Your task to perform on an android device: Go to Google Image 0: 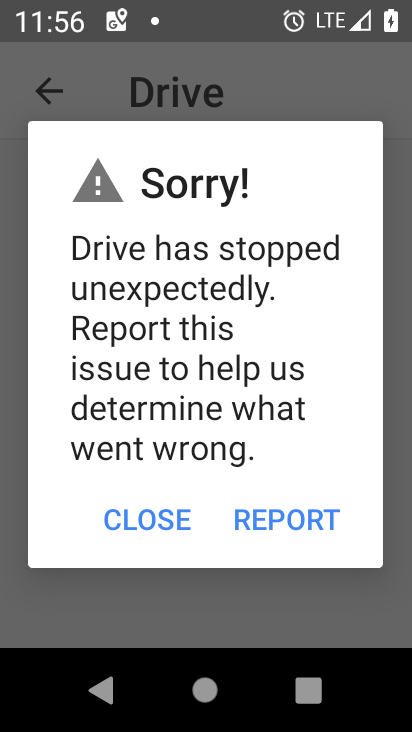
Step 0: press home button
Your task to perform on an android device: Go to Google Image 1: 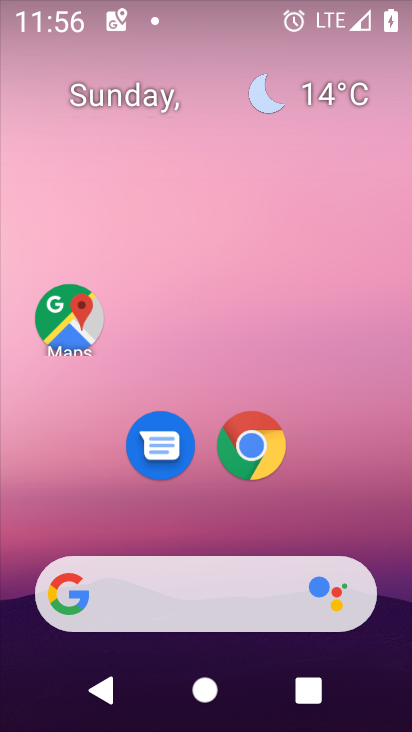
Step 1: drag from (229, 480) to (295, 80)
Your task to perform on an android device: Go to Google Image 2: 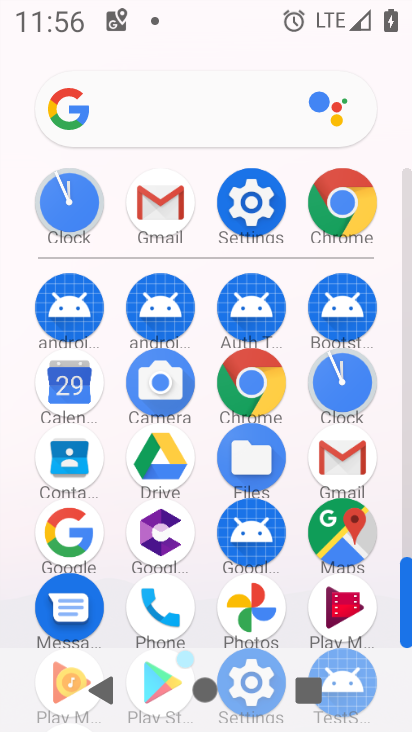
Step 2: click (49, 539)
Your task to perform on an android device: Go to Google Image 3: 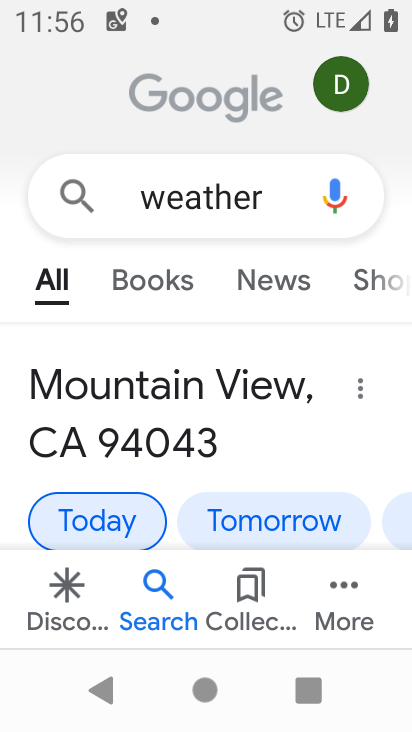
Step 3: task complete